Your task to perform on an android device: Open the phone app and click the voicemail tab. Image 0: 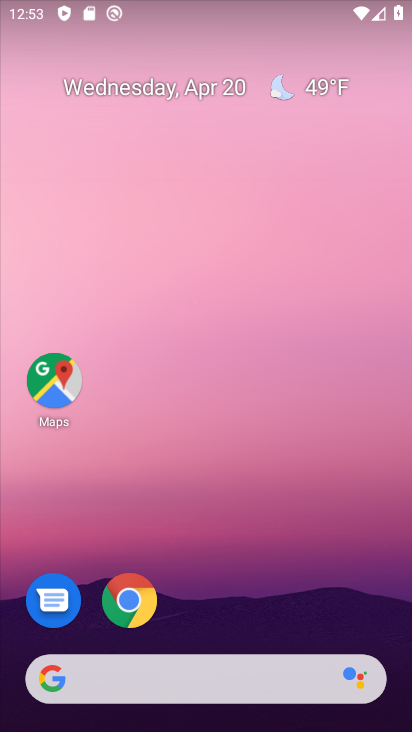
Step 0: drag from (272, 540) to (275, 294)
Your task to perform on an android device: Open the phone app and click the voicemail tab. Image 1: 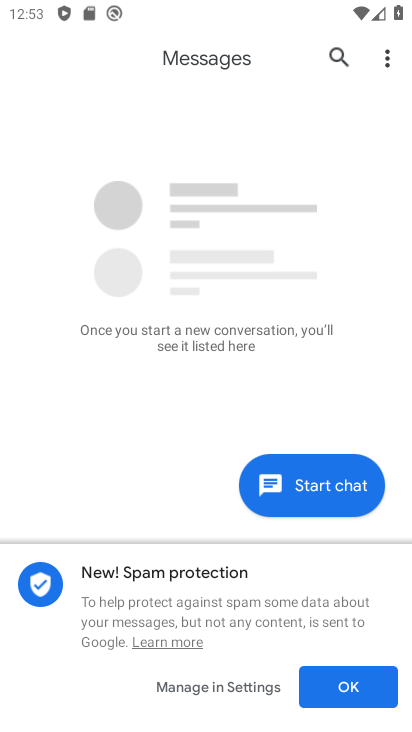
Step 1: press home button
Your task to perform on an android device: Open the phone app and click the voicemail tab. Image 2: 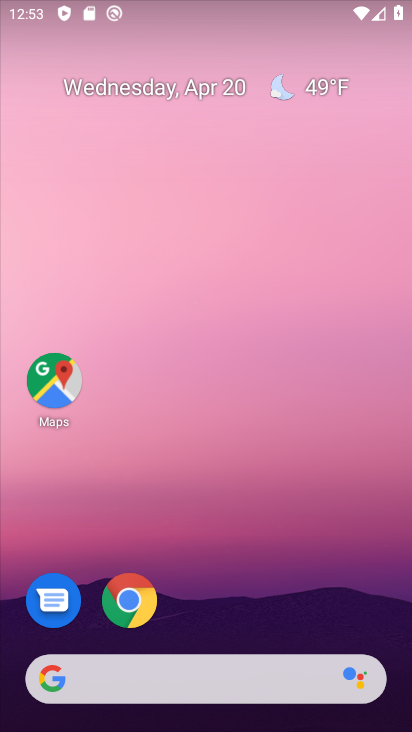
Step 2: drag from (251, 575) to (262, 322)
Your task to perform on an android device: Open the phone app and click the voicemail tab. Image 3: 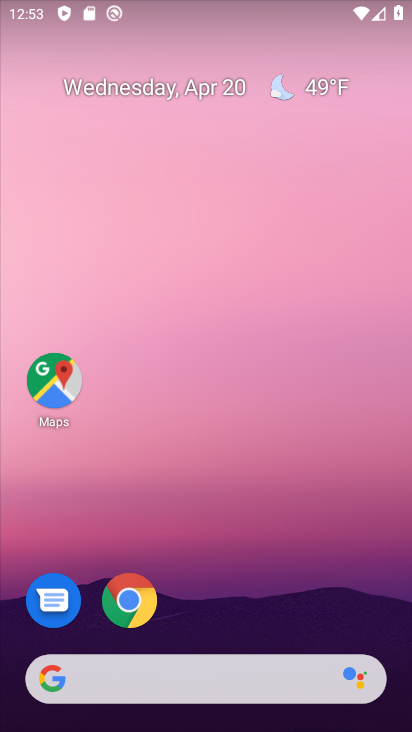
Step 3: drag from (279, 432) to (274, 341)
Your task to perform on an android device: Open the phone app and click the voicemail tab. Image 4: 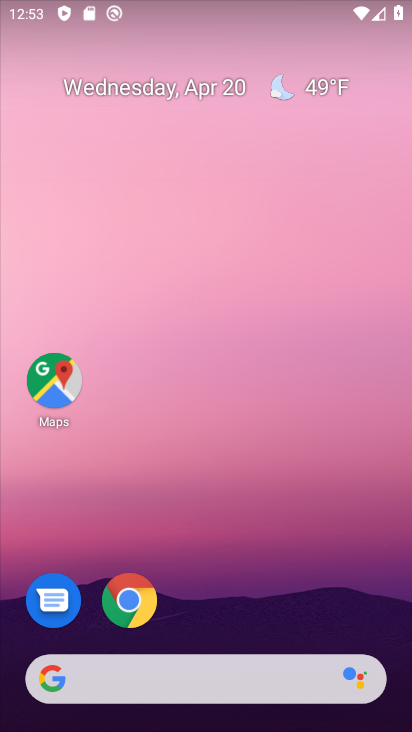
Step 4: drag from (297, 586) to (281, 315)
Your task to perform on an android device: Open the phone app and click the voicemail tab. Image 5: 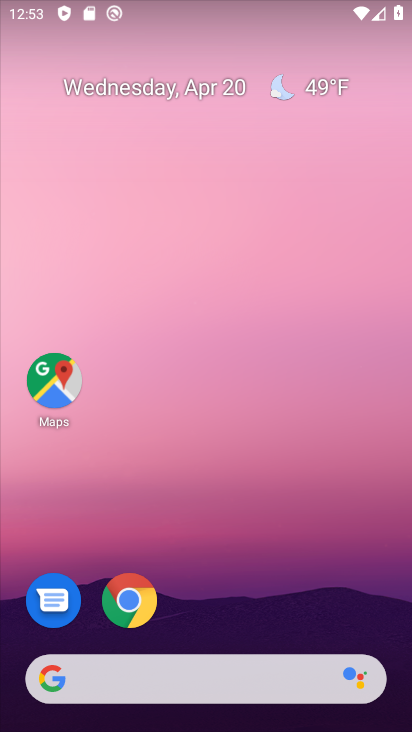
Step 5: drag from (255, 672) to (259, 362)
Your task to perform on an android device: Open the phone app and click the voicemail tab. Image 6: 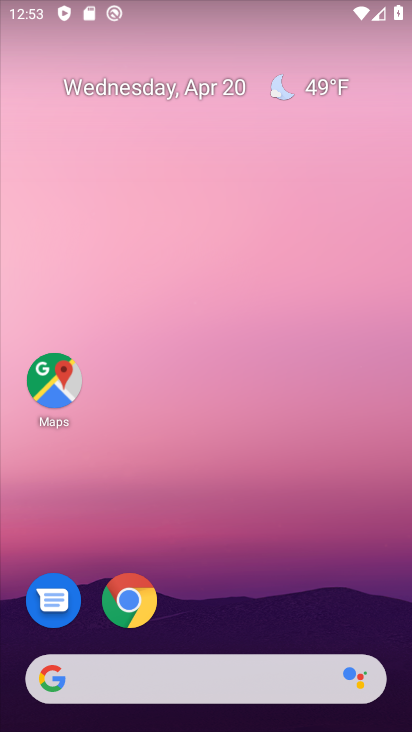
Step 6: drag from (263, 426) to (263, 321)
Your task to perform on an android device: Open the phone app and click the voicemail tab. Image 7: 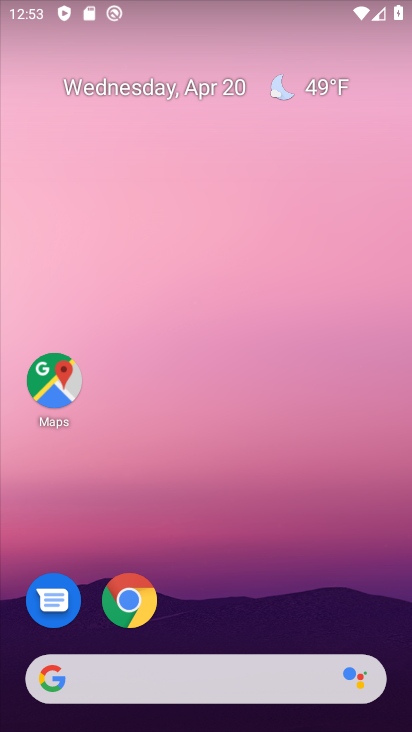
Step 7: drag from (256, 651) to (262, 111)
Your task to perform on an android device: Open the phone app and click the voicemail tab. Image 8: 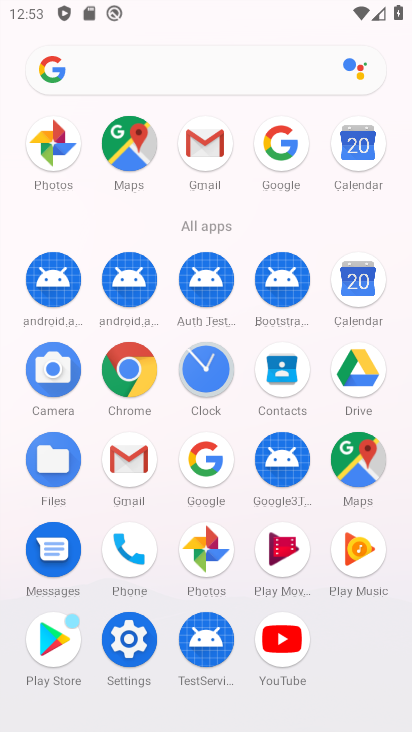
Step 8: click (134, 545)
Your task to perform on an android device: Open the phone app and click the voicemail tab. Image 9: 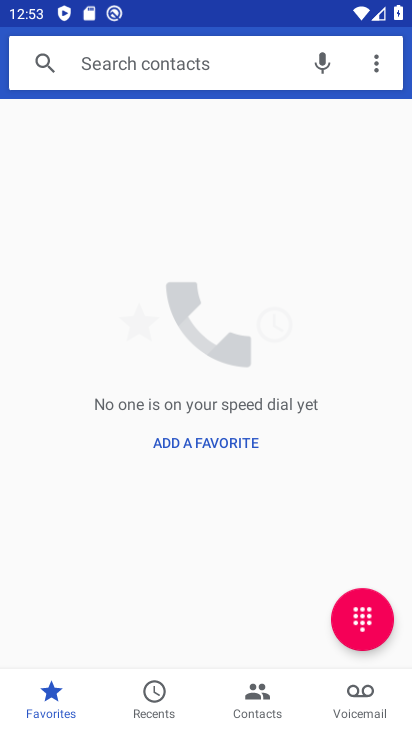
Step 9: click (136, 530)
Your task to perform on an android device: Open the phone app and click the voicemail tab. Image 10: 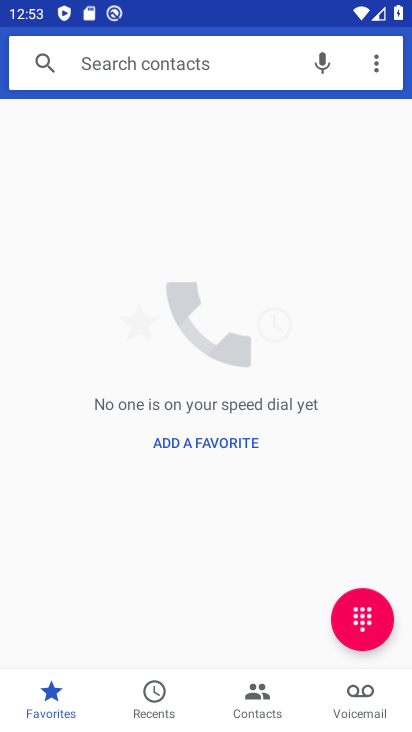
Step 10: click (361, 691)
Your task to perform on an android device: Open the phone app and click the voicemail tab. Image 11: 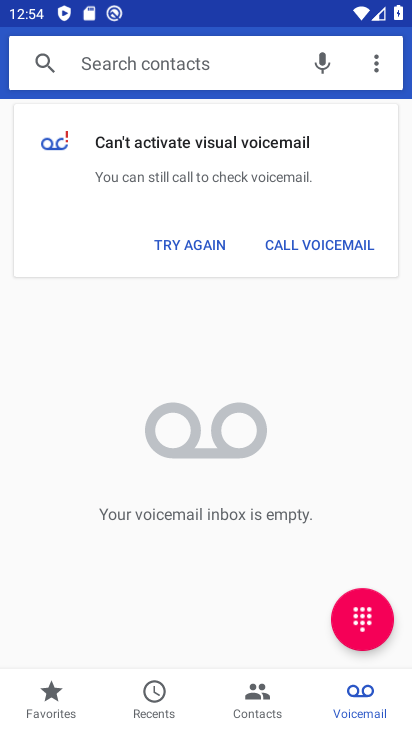
Step 11: task complete